Your task to perform on an android device: Open my contact list Image 0: 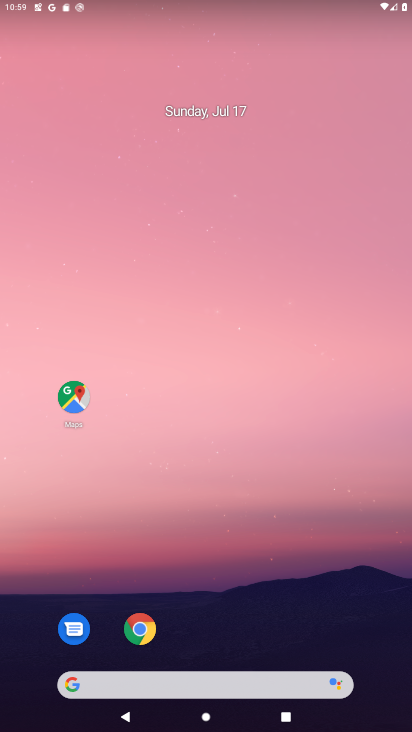
Step 0: drag from (196, 681) to (290, 241)
Your task to perform on an android device: Open my contact list Image 1: 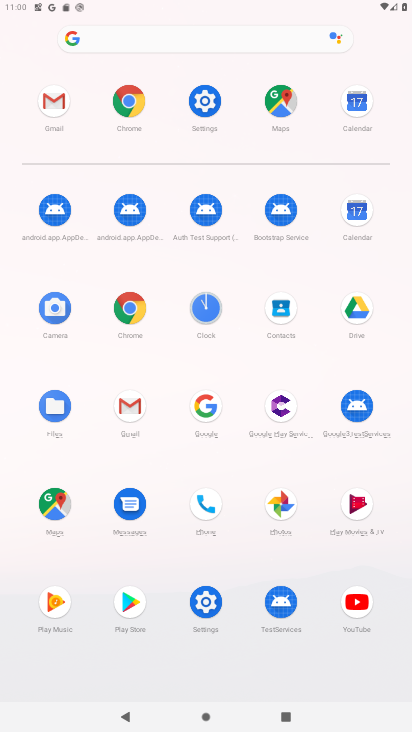
Step 1: click (277, 311)
Your task to perform on an android device: Open my contact list Image 2: 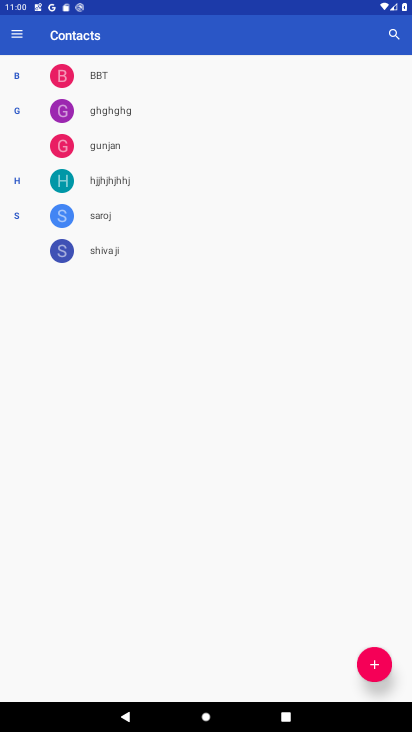
Step 2: task complete